Your task to perform on an android device: clear all cookies in the chrome app Image 0: 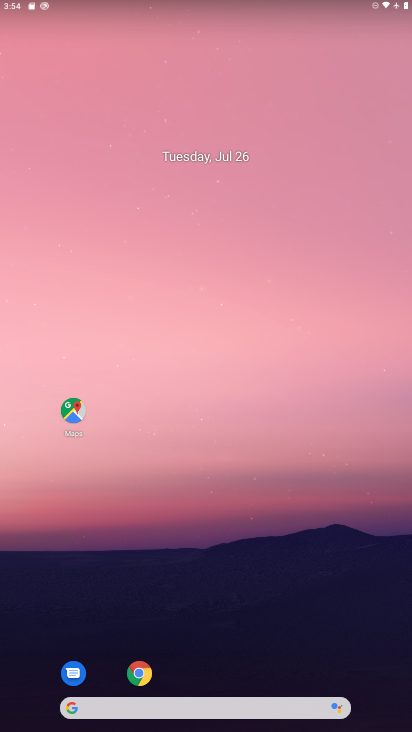
Step 0: click (145, 680)
Your task to perform on an android device: clear all cookies in the chrome app Image 1: 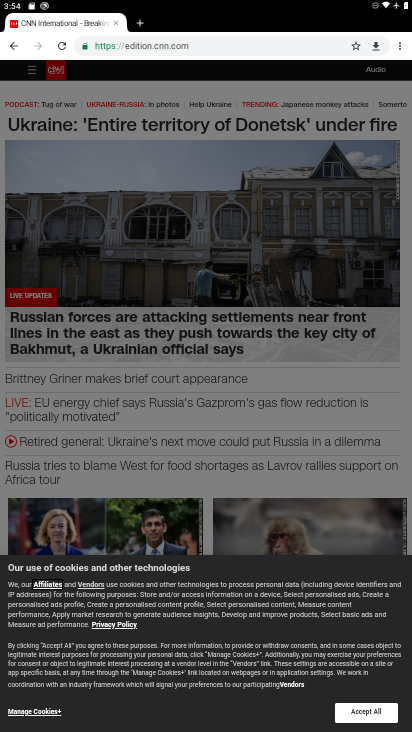
Step 1: drag from (400, 49) to (308, 278)
Your task to perform on an android device: clear all cookies in the chrome app Image 2: 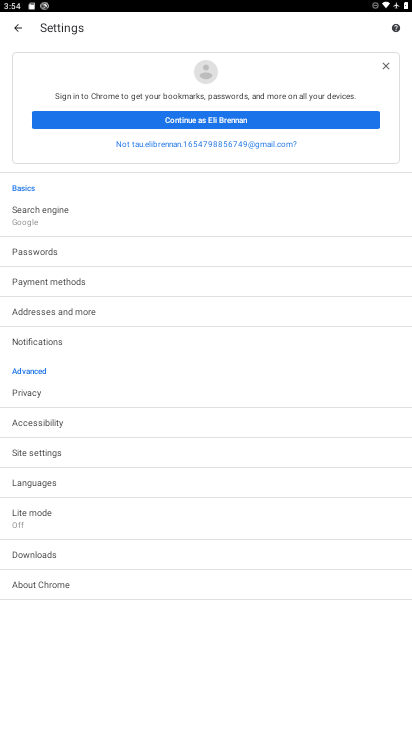
Step 2: click (28, 399)
Your task to perform on an android device: clear all cookies in the chrome app Image 3: 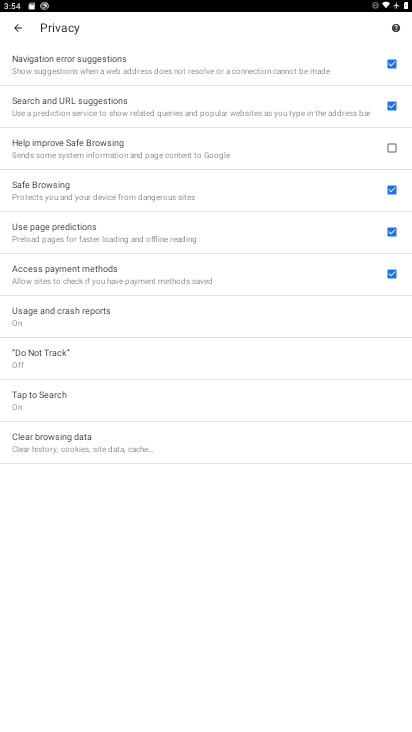
Step 3: click (43, 443)
Your task to perform on an android device: clear all cookies in the chrome app Image 4: 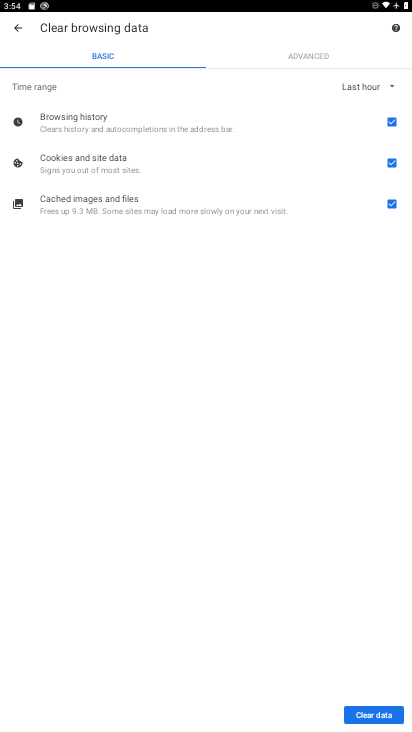
Step 4: click (390, 121)
Your task to perform on an android device: clear all cookies in the chrome app Image 5: 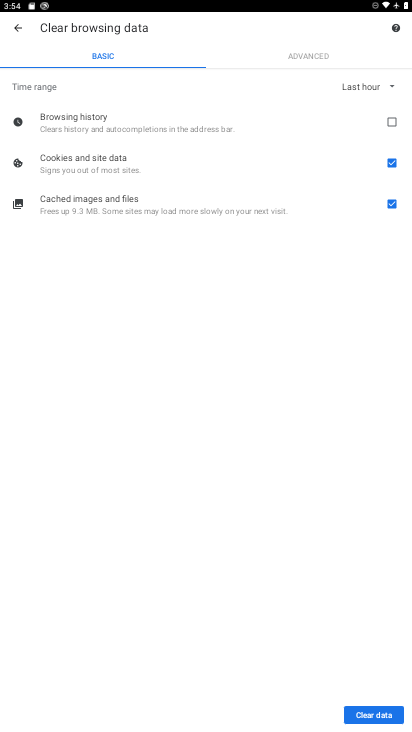
Step 5: click (391, 203)
Your task to perform on an android device: clear all cookies in the chrome app Image 6: 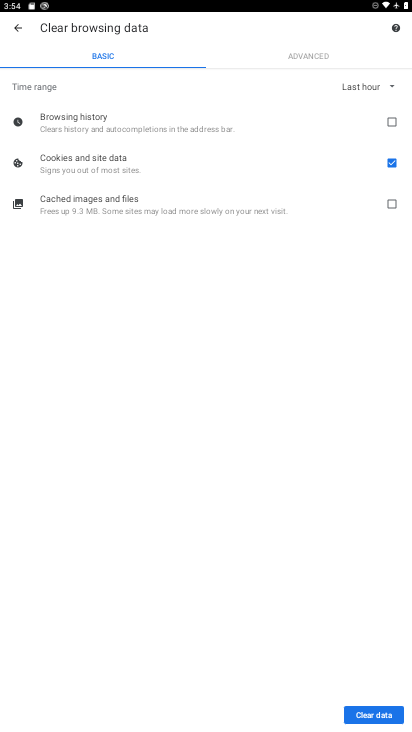
Step 6: click (380, 715)
Your task to perform on an android device: clear all cookies in the chrome app Image 7: 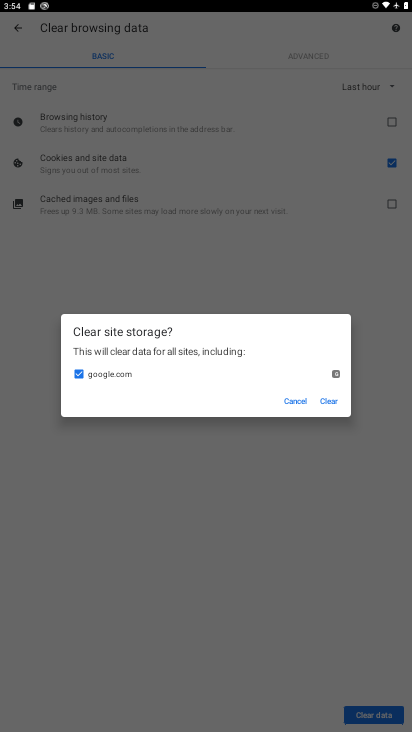
Step 7: click (332, 405)
Your task to perform on an android device: clear all cookies in the chrome app Image 8: 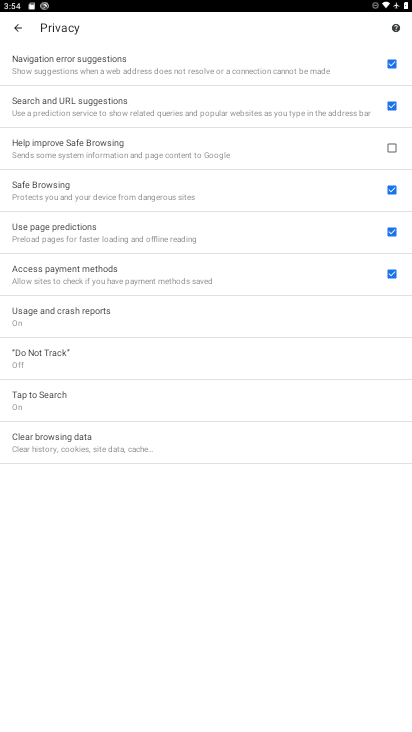
Step 8: task complete